Your task to perform on an android device: Go to location settings Image 0: 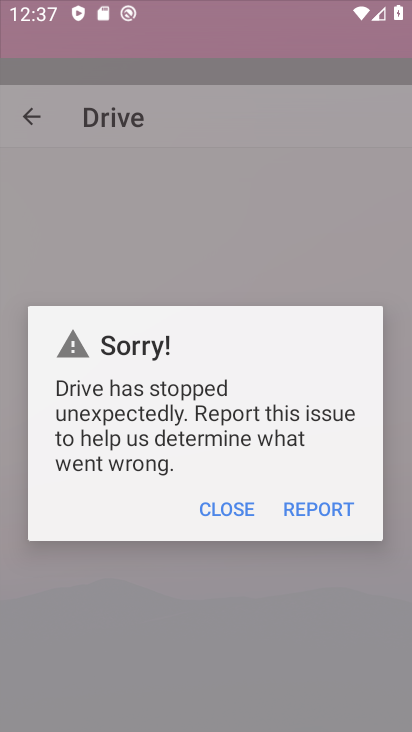
Step 0: click (152, 593)
Your task to perform on an android device: Go to location settings Image 1: 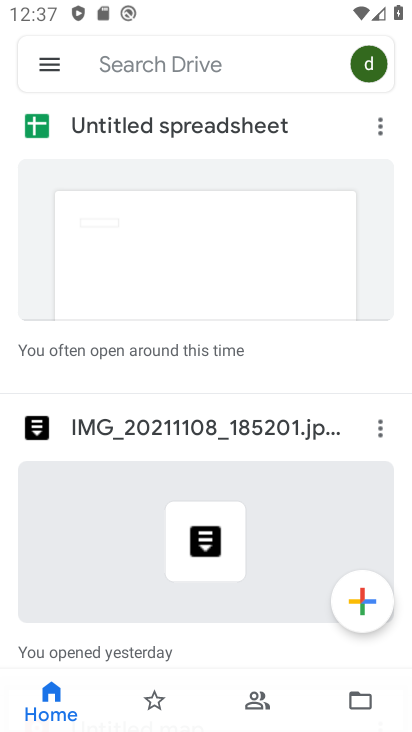
Step 1: press home button
Your task to perform on an android device: Go to location settings Image 2: 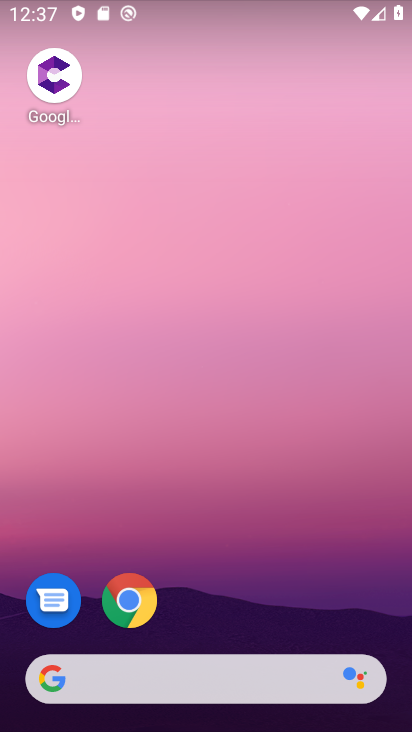
Step 2: drag from (197, 604) to (172, 117)
Your task to perform on an android device: Go to location settings Image 3: 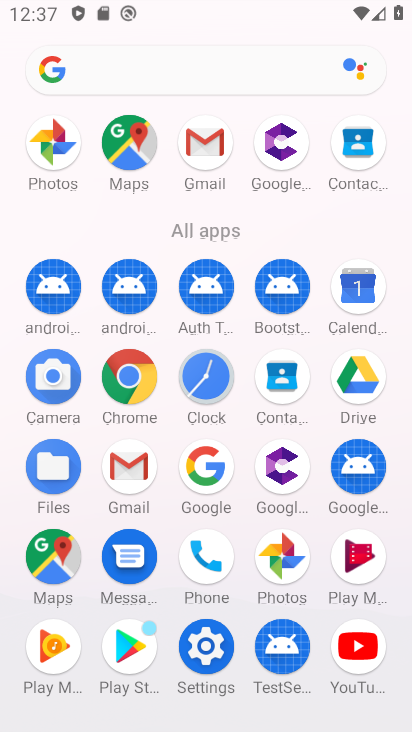
Step 3: click (218, 649)
Your task to perform on an android device: Go to location settings Image 4: 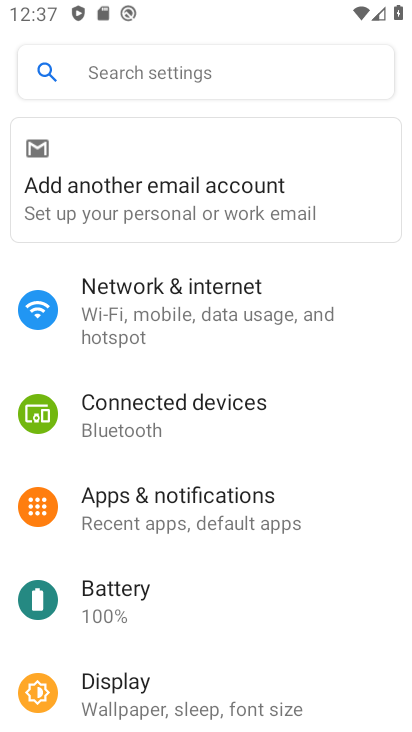
Step 4: drag from (218, 649) to (183, 170)
Your task to perform on an android device: Go to location settings Image 5: 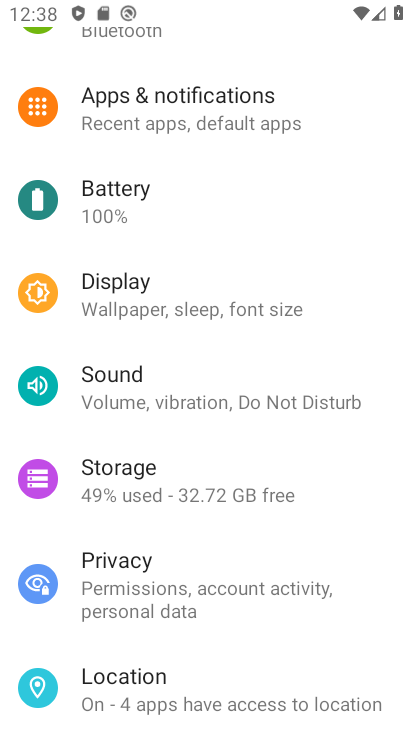
Step 5: click (78, 691)
Your task to perform on an android device: Go to location settings Image 6: 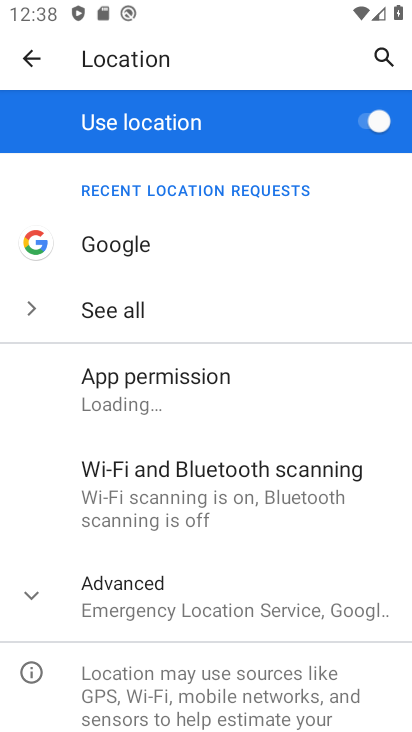
Step 6: task complete